Your task to perform on an android device: Open Google Chrome Image 0: 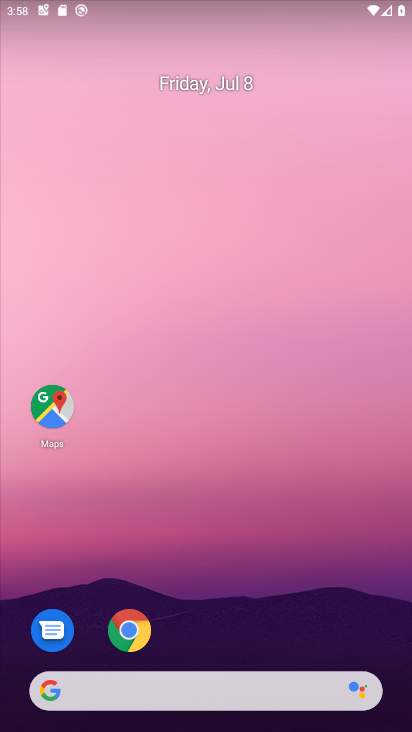
Step 0: drag from (270, 618) to (259, 95)
Your task to perform on an android device: Open Google Chrome Image 1: 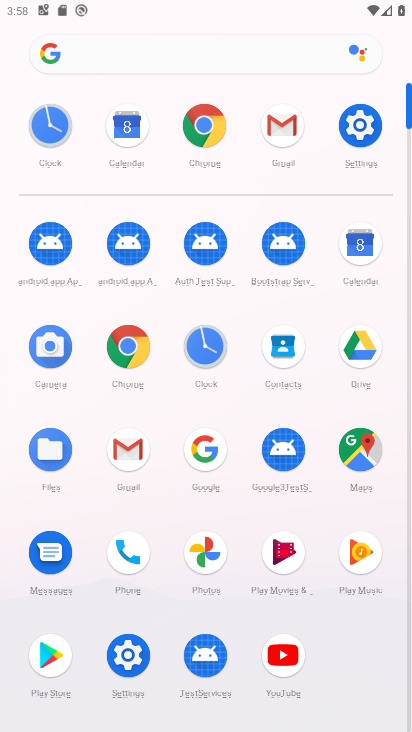
Step 1: click (125, 347)
Your task to perform on an android device: Open Google Chrome Image 2: 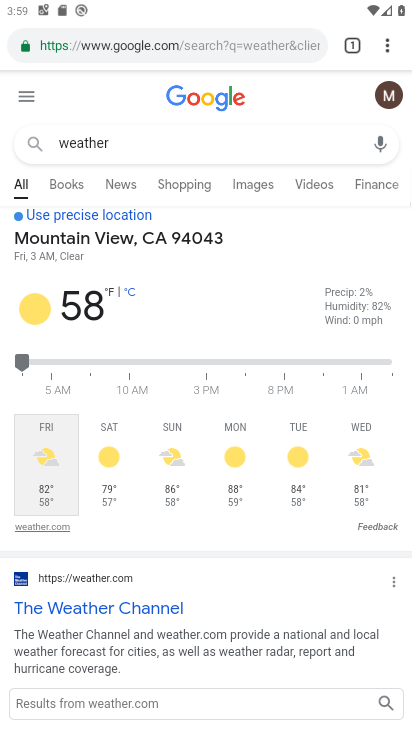
Step 2: task complete